Your task to perform on an android device: toggle location history Image 0: 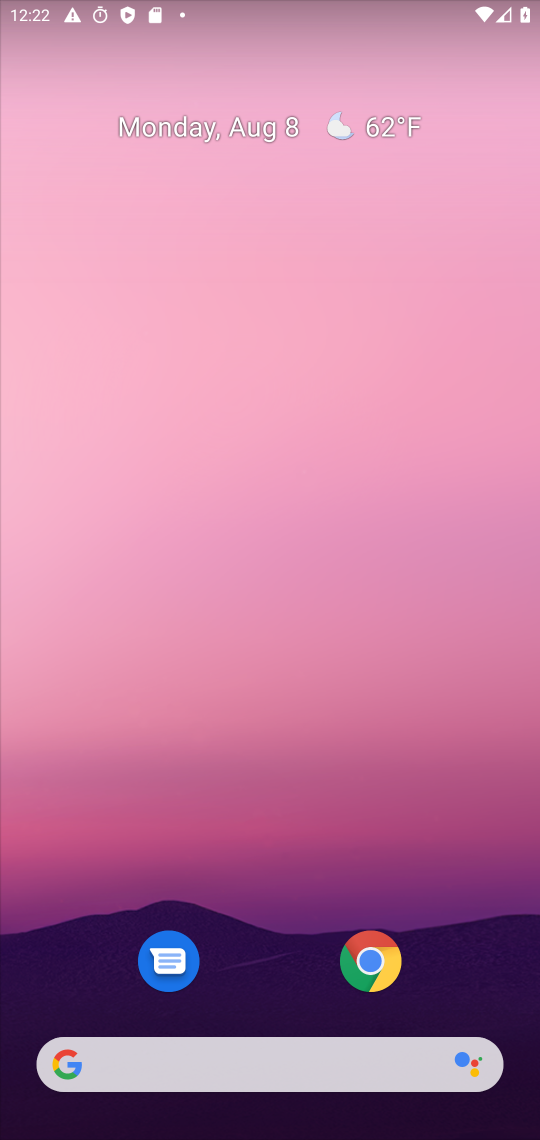
Step 0: drag from (280, 1052) to (94, 65)
Your task to perform on an android device: toggle location history Image 1: 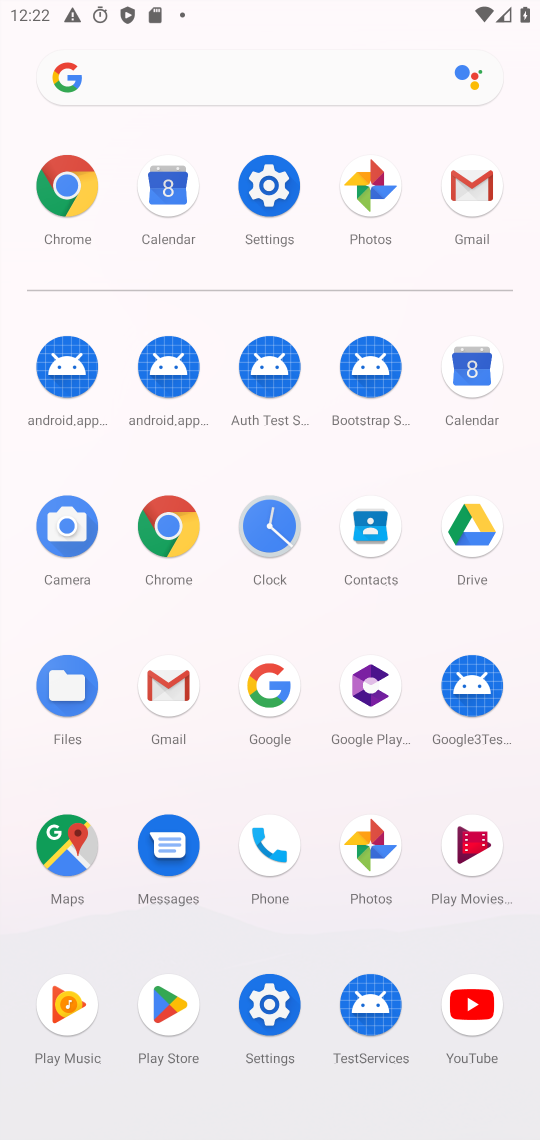
Step 1: click (429, 390)
Your task to perform on an android device: toggle location history Image 2: 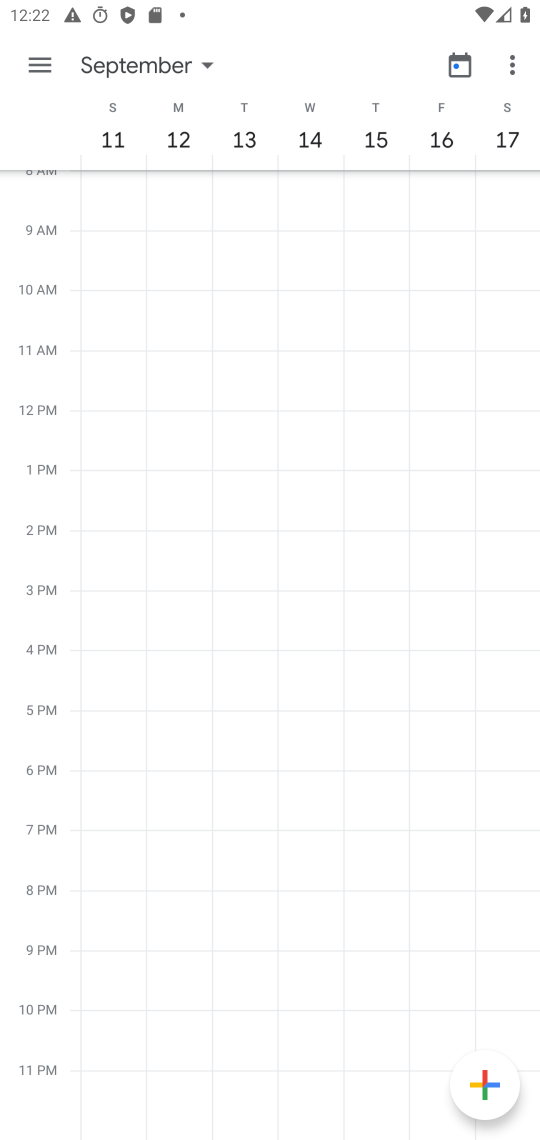
Step 2: click (254, 183)
Your task to perform on an android device: toggle location history Image 3: 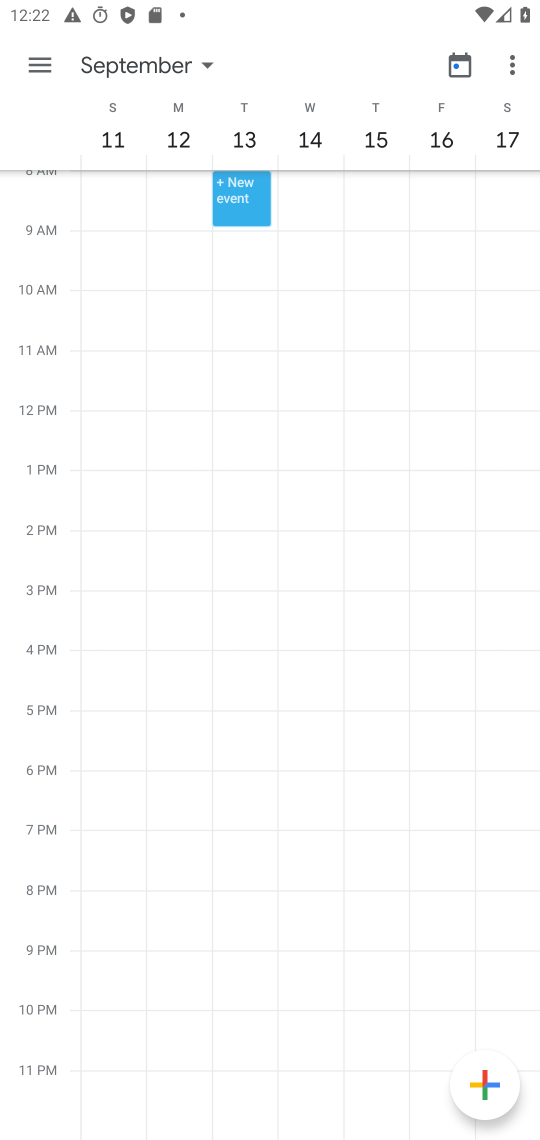
Step 3: press back button
Your task to perform on an android device: toggle location history Image 4: 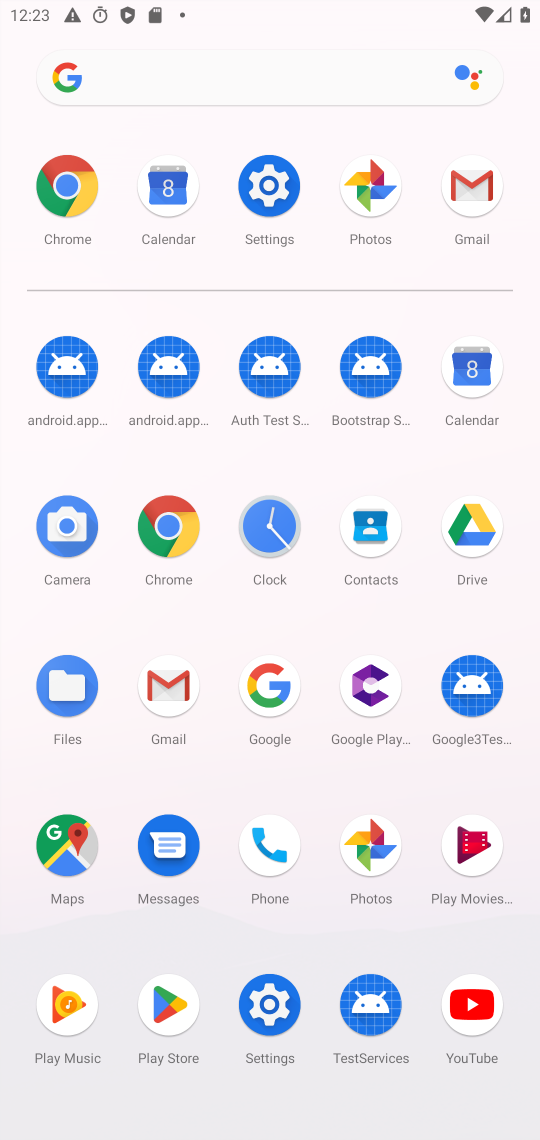
Step 4: click (274, 177)
Your task to perform on an android device: toggle location history Image 5: 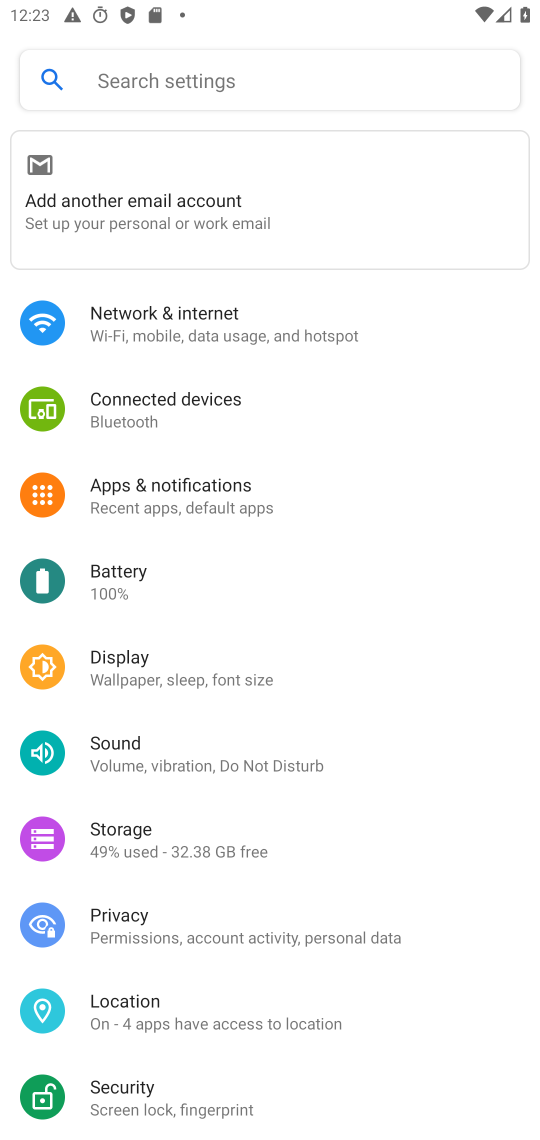
Step 5: click (203, 1006)
Your task to perform on an android device: toggle location history Image 6: 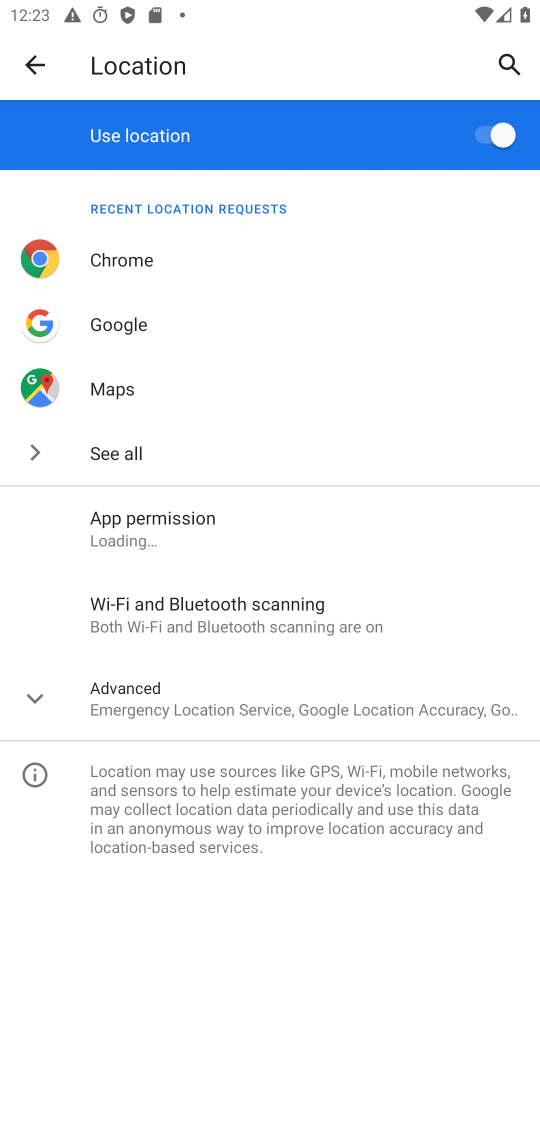
Step 6: click (154, 686)
Your task to perform on an android device: toggle location history Image 7: 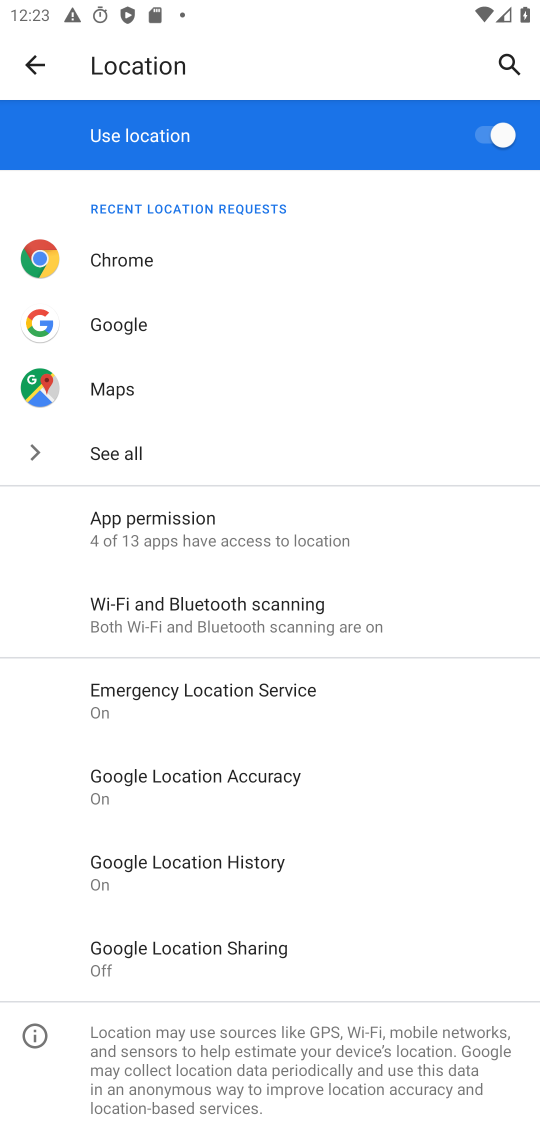
Step 7: click (245, 879)
Your task to perform on an android device: toggle location history Image 8: 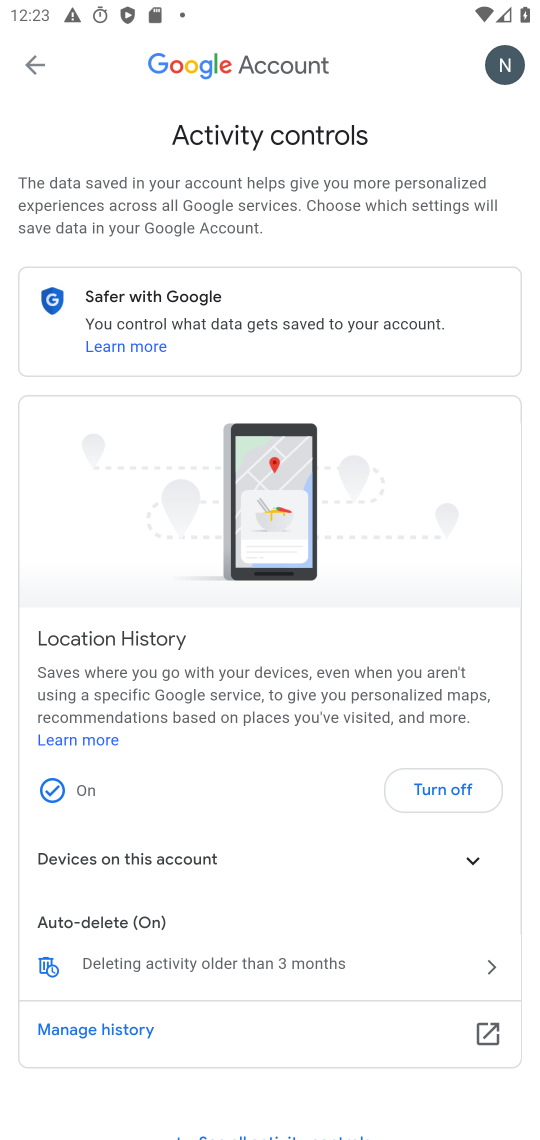
Step 8: click (462, 782)
Your task to perform on an android device: toggle location history Image 9: 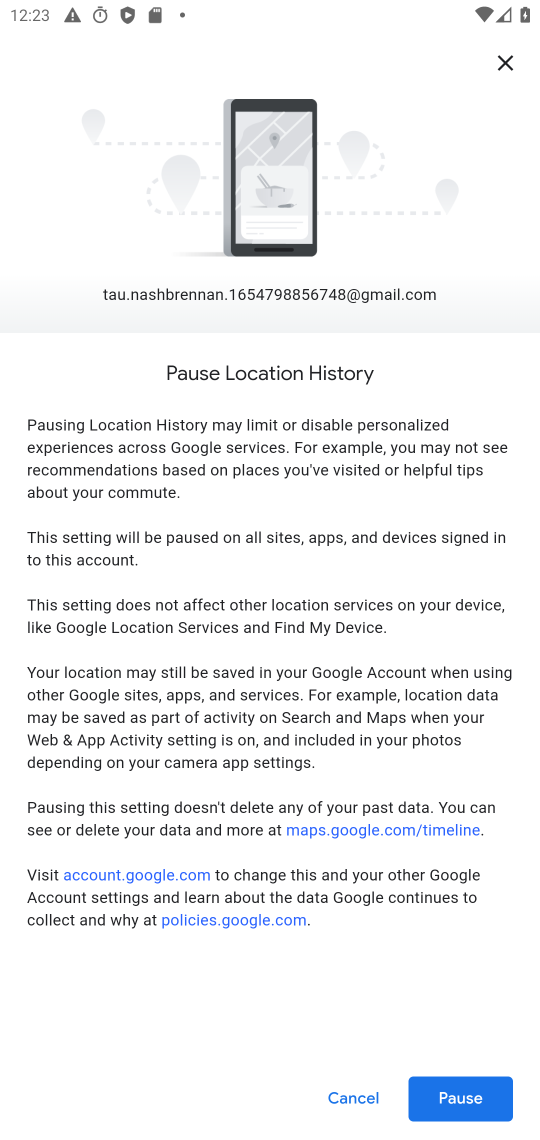
Step 9: click (457, 1094)
Your task to perform on an android device: toggle location history Image 10: 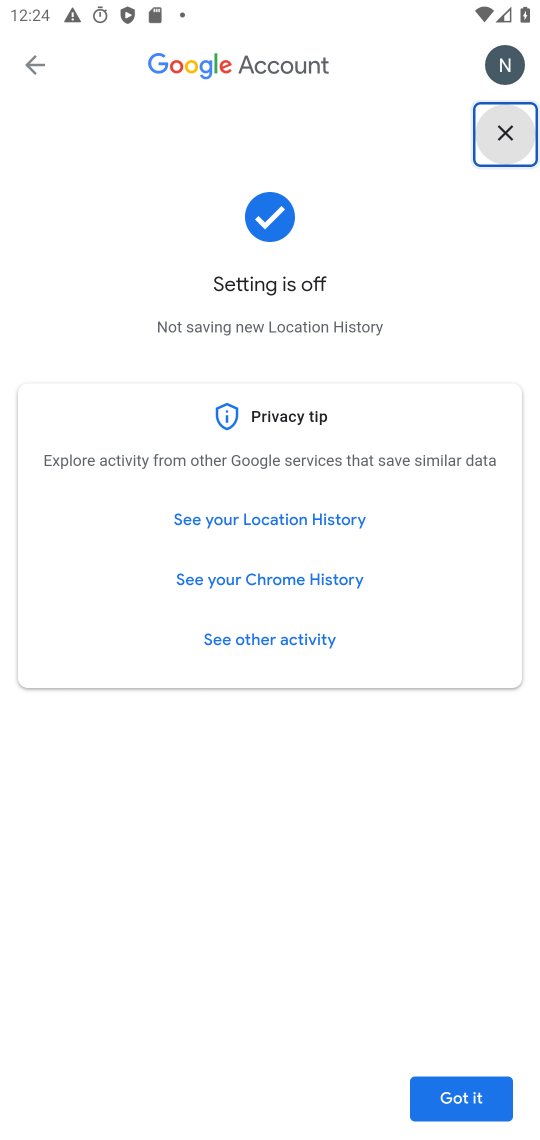
Step 10: task complete